Your task to perform on an android device: What's on the menu at Subway? Image 0: 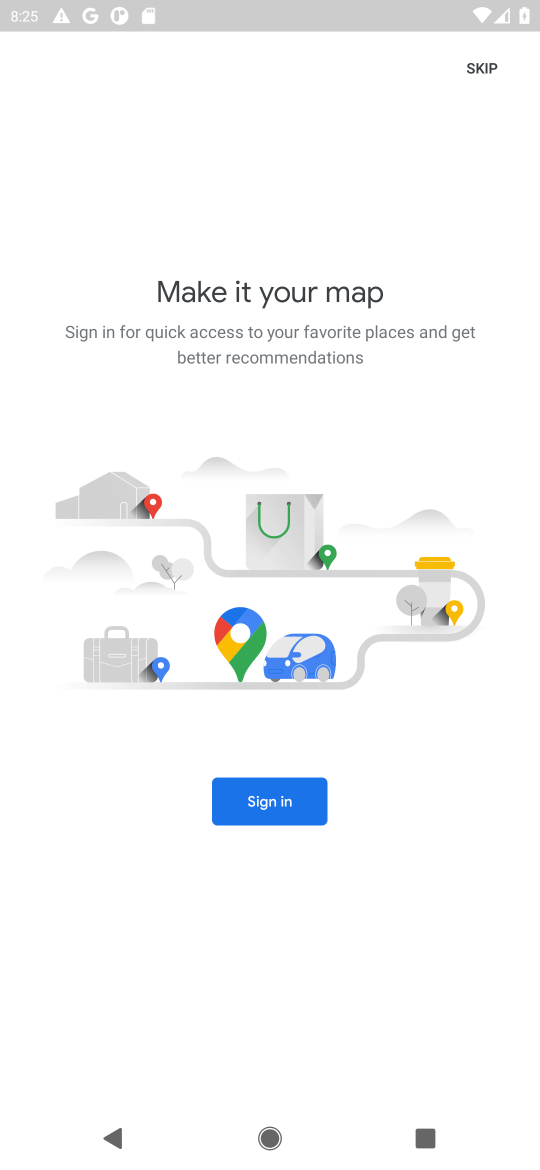
Step 0: press home button
Your task to perform on an android device: What's on the menu at Subway? Image 1: 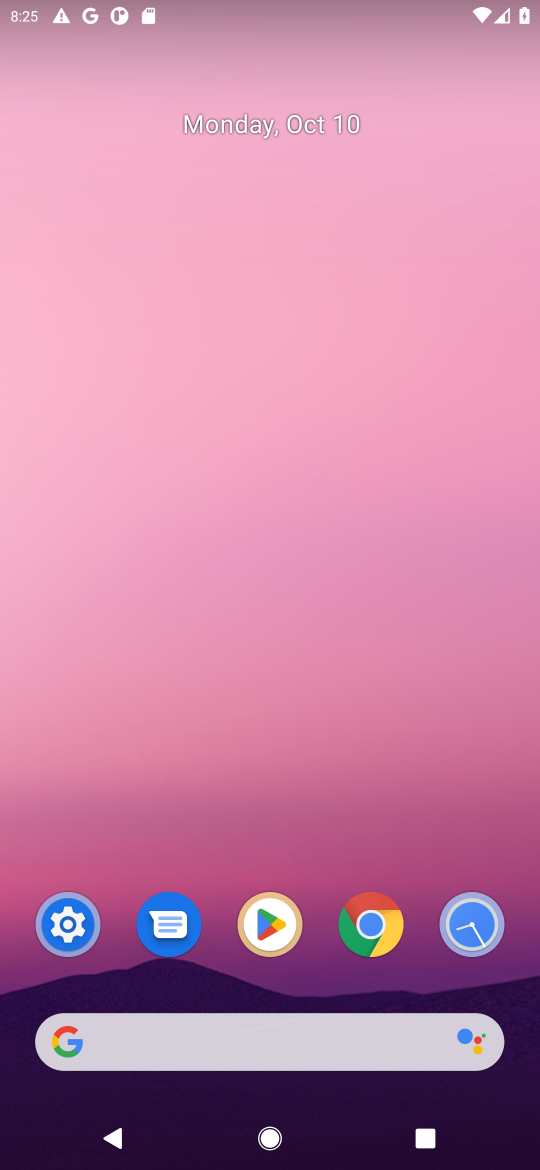
Step 1: click (364, 913)
Your task to perform on an android device: What's on the menu at Subway? Image 2: 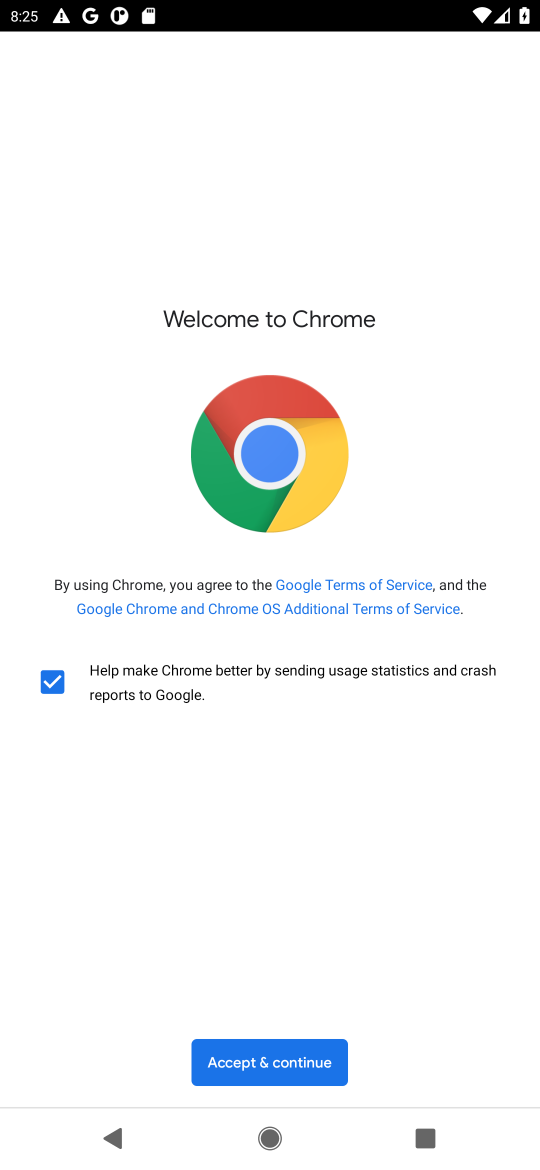
Step 2: click (328, 1069)
Your task to perform on an android device: What's on the menu at Subway? Image 3: 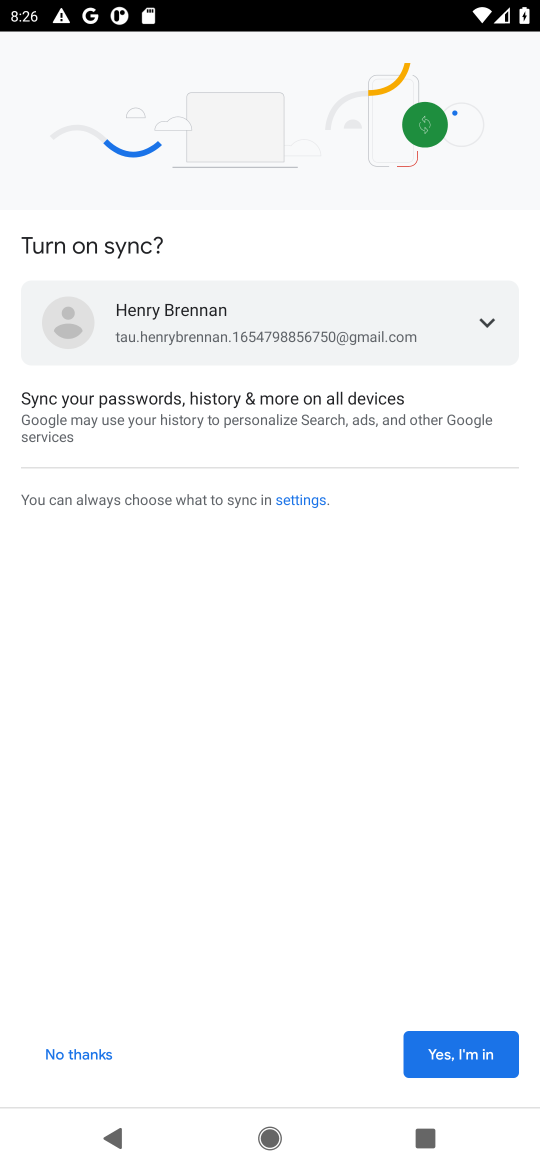
Step 3: click (445, 1054)
Your task to perform on an android device: What's on the menu at Subway? Image 4: 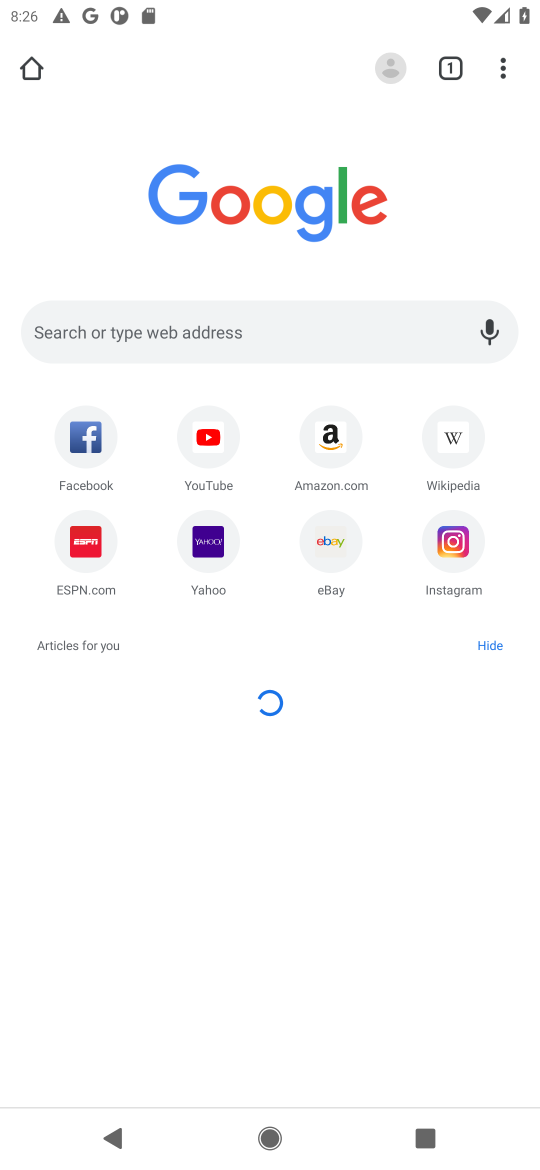
Step 4: click (286, 336)
Your task to perform on an android device: What's on the menu at Subway? Image 5: 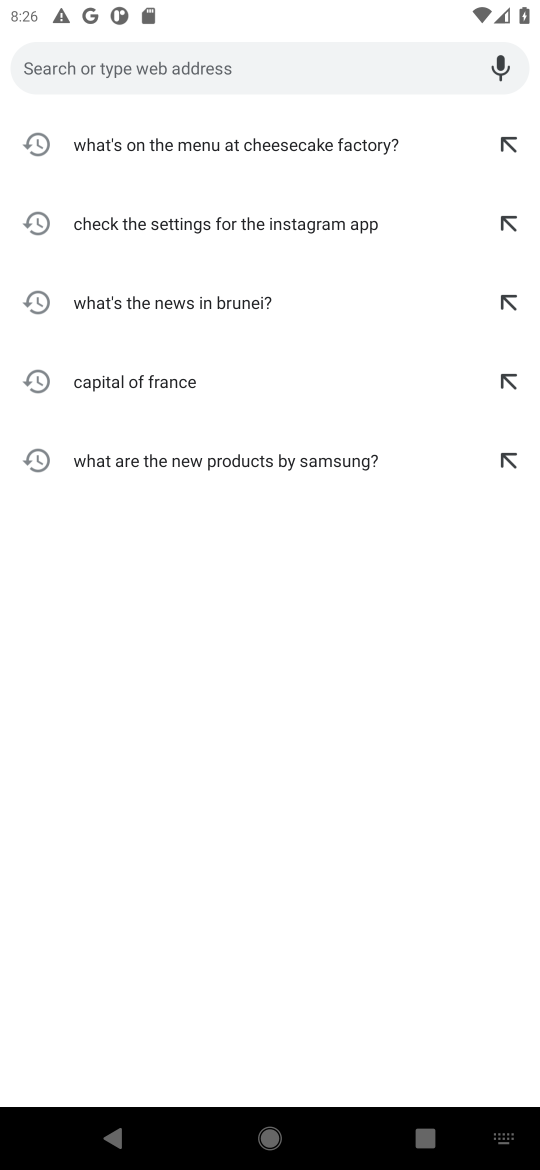
Step 5: type "What's on the menu at Subway?"
Your task to perform on an android device: What's on the menu at Subway? Image 6: 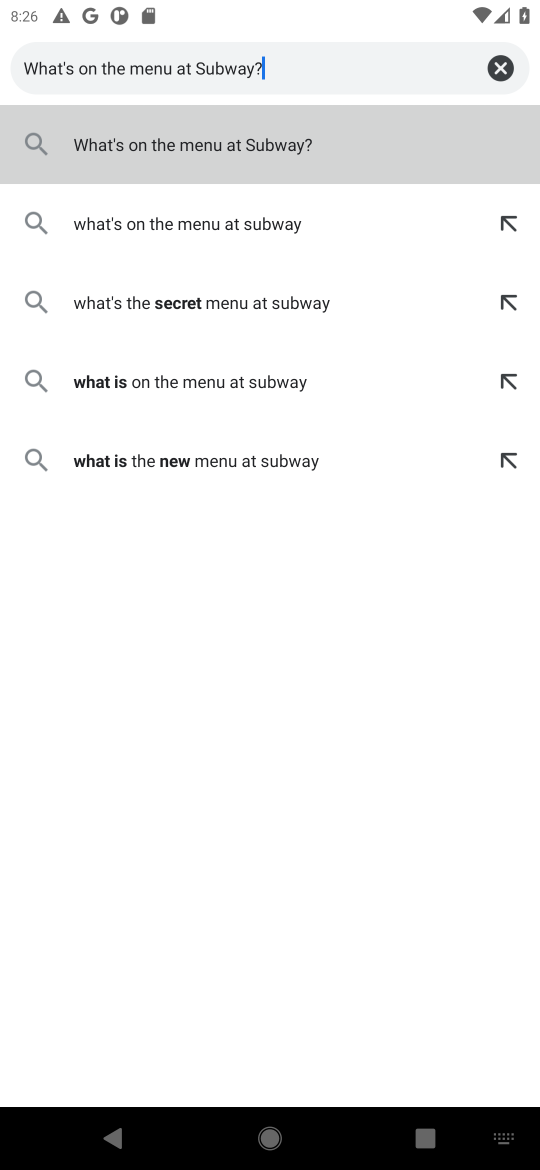
Step 6: click (393, 172)
Your task to perform on an android device: What's on the menu at Subway? Image 7: 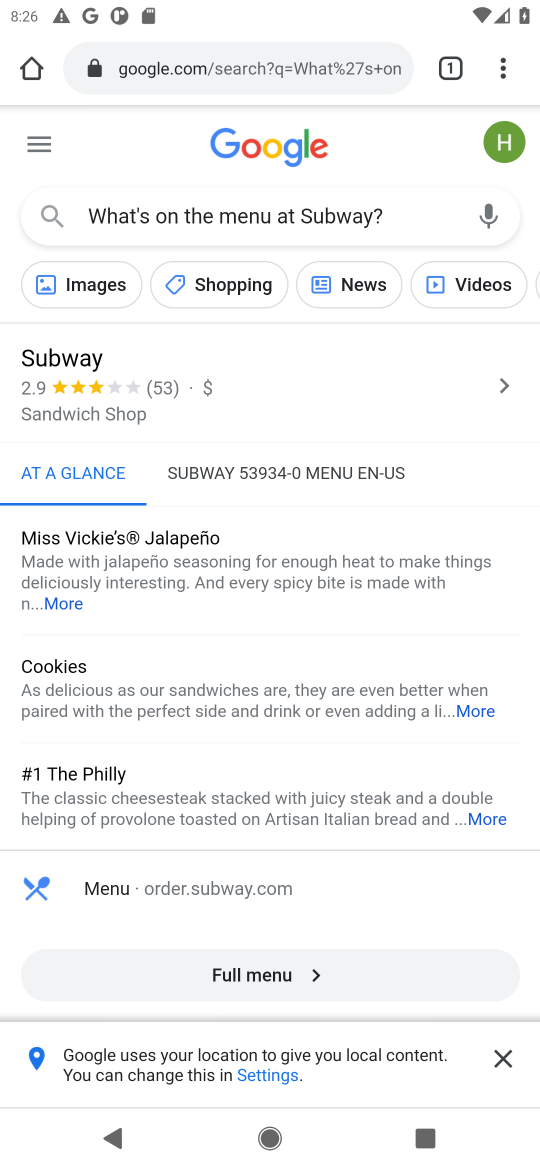
Step 7: task complete